Your task to perform on an android device: move a message to another label in the gmail app Image 0: 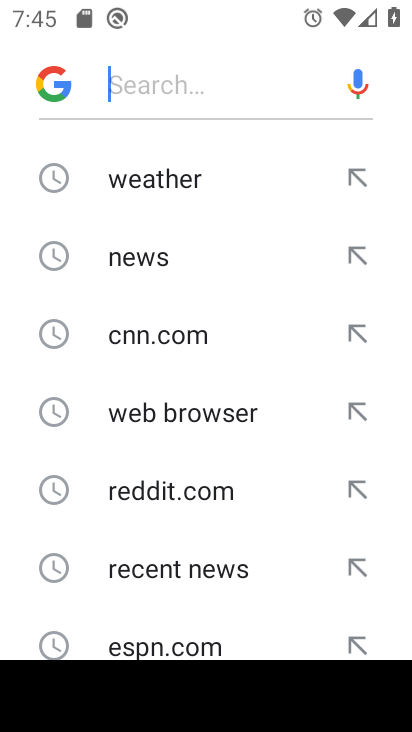
Step 0: press home button
Your task to perform on an android device: move a message to another label in the gmail app Image 1: 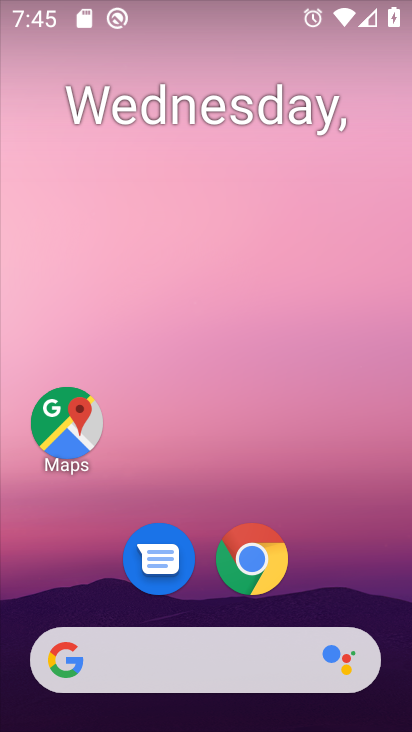
Step 1: drag from (379, 481) to (361, 111)
Your task to perform on an android device: move a message to another label in the gmail app Image 2: 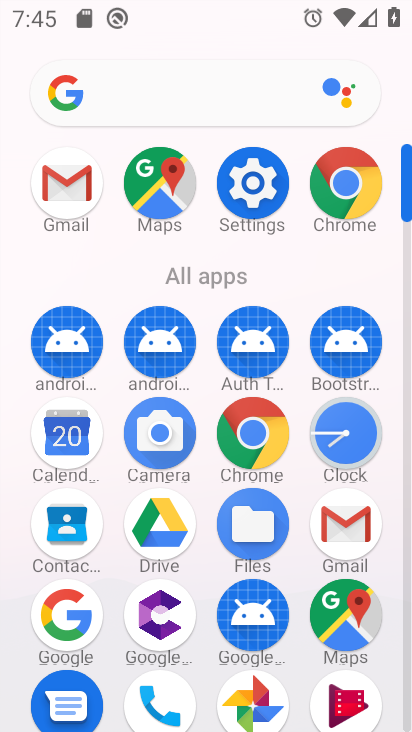
Step 2: click (337, 548)
Your task to perform on an android device: move a message to another label in the gmail app Image 3: 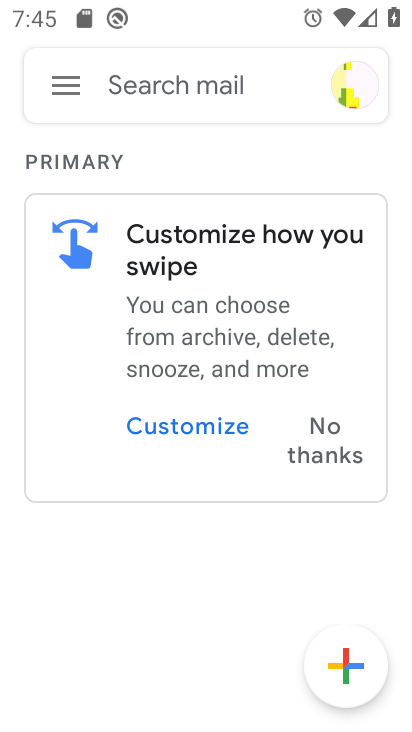
Step 3: click (60, 101)
Your task to perform on an android device: move a message to another label in the gmail app Image 4: 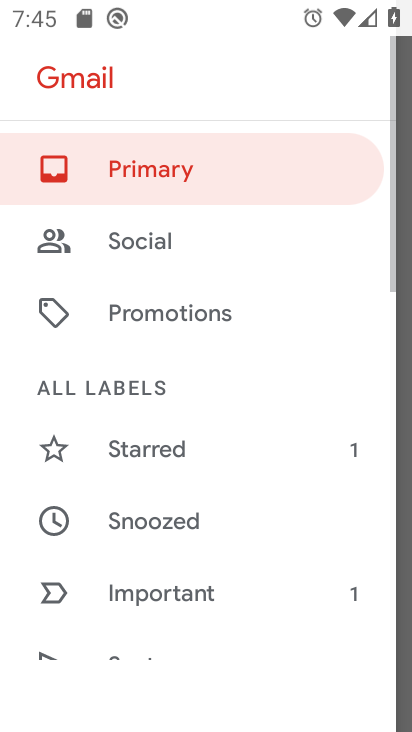
Step 4: drag from (252, 613) to (276, 278)
Your task to perform on an android device: move a message to another label in the gmail app Image 5: 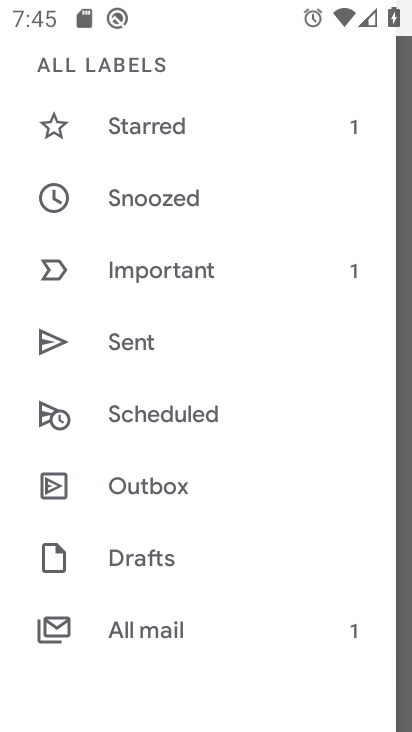
Step 5: click (238, 625)
Your task to perform on an android device: move a message to another label in the gmail app Image 6: 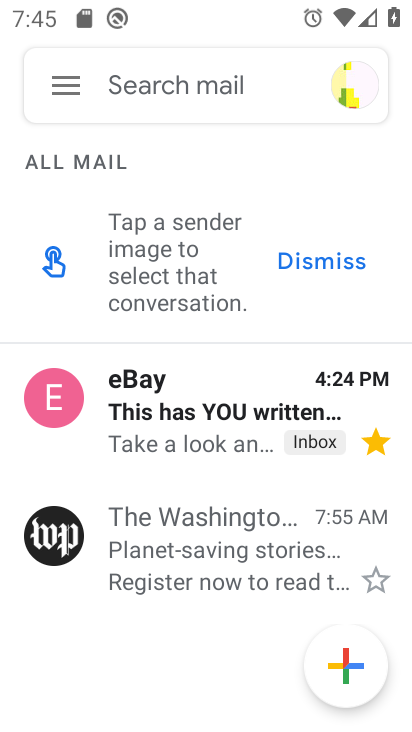
Step 6: click (369, 580)
Your task to perform on an android device: move a message to another label in the gmail app Image 7: 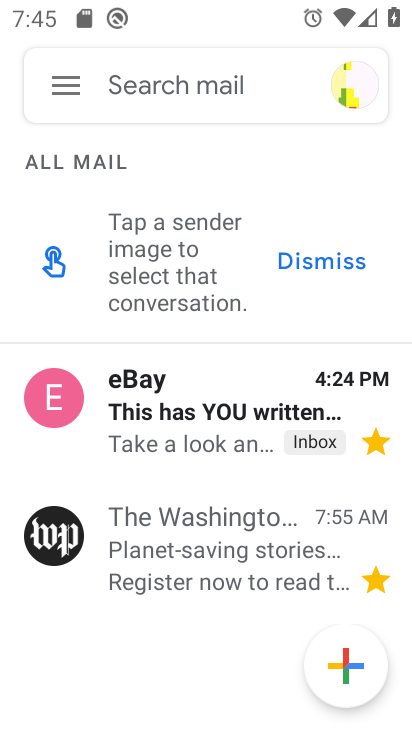
Step 7: task complete